Your task to perform on an android device: turn off wifi Image 0: 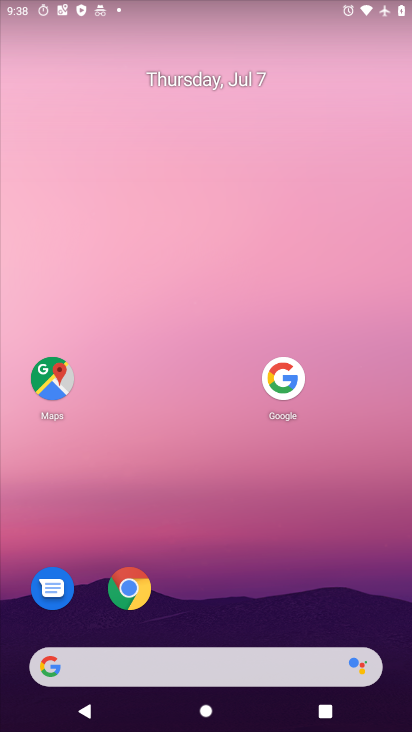
Step 0: drag from (216, 359) to (268, 14)
Your task to perform on an android device: turn off wifi Image 1: 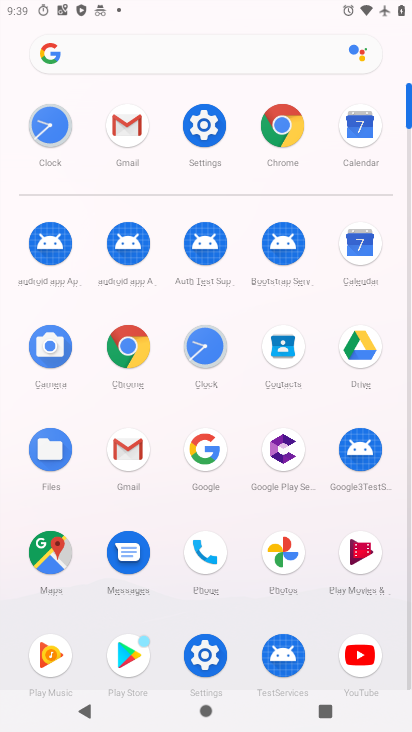
Step 1: click (210, 127)
Your task to perform on an android device: turn off wifi Image 2: 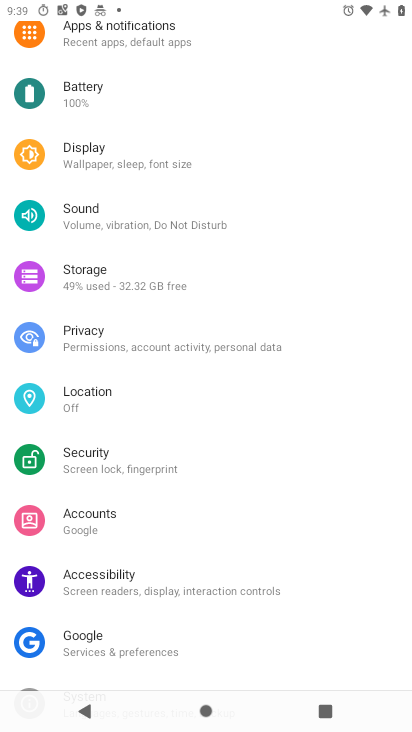
Step 2: drag from (235, 123) to (216, 602)
Your task to perform on an android device: turn off wifi Image 3: 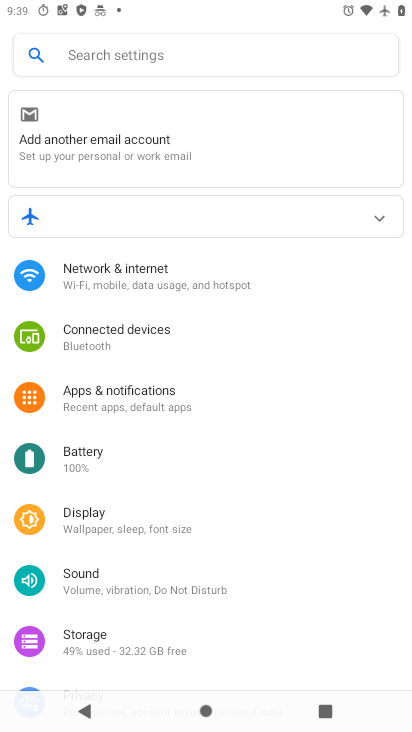
Step 3: click (149, 272)
Your task to perform on an android device: turn off wifi Image 4: 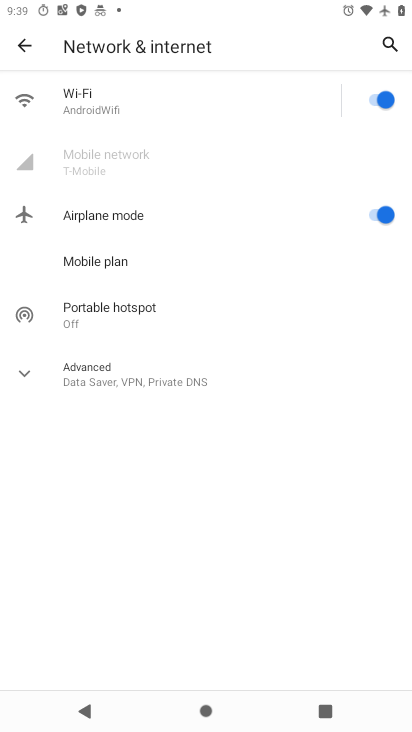
Step 4: click (371, 100)
Your task to perform on an android device: turn off wifi Image 5: 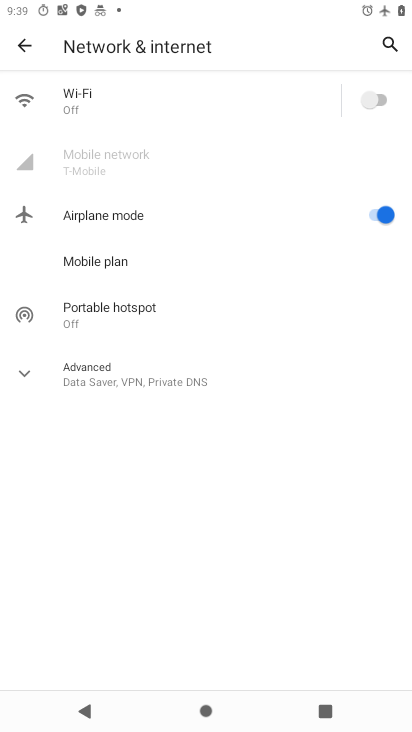
Step 5: task complete